Your task to perform on an android device: open app "ZOOM Cloud Meetings" Image 0: 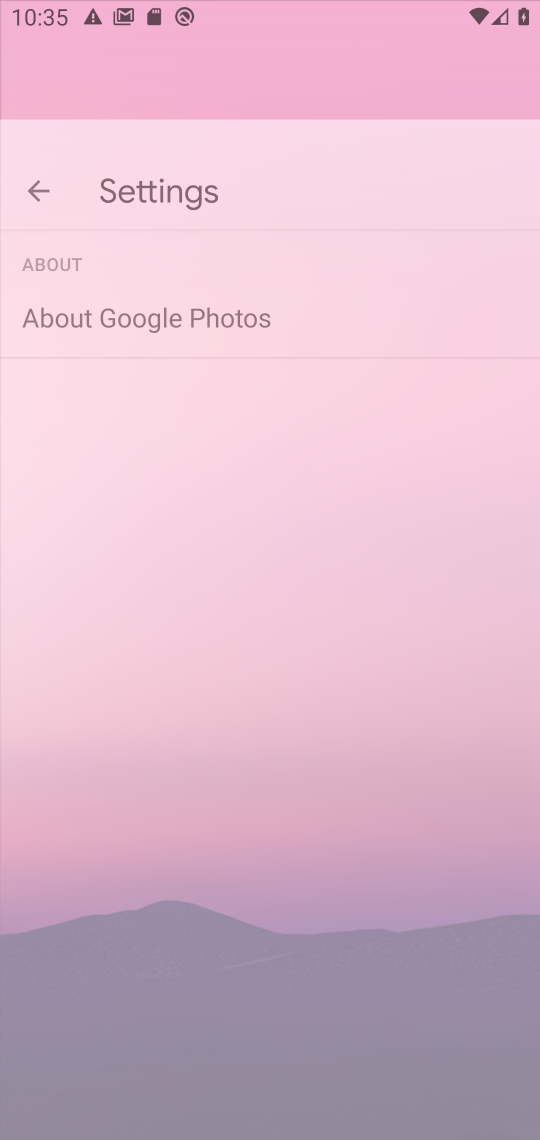
Step 0: click (211, 23)
Your task to perform on an android device: open app "ZOOM Cloud Meetings" Image 1: 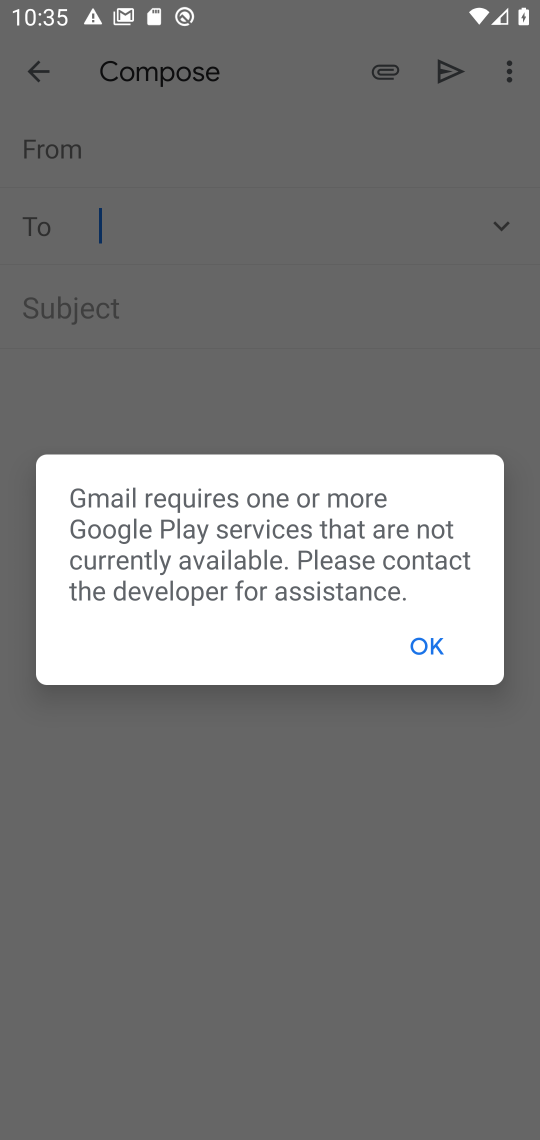
Step 1: press home button
Your task to perform on an android device: open app "ZOOM Cloud Meetings" Image 2: 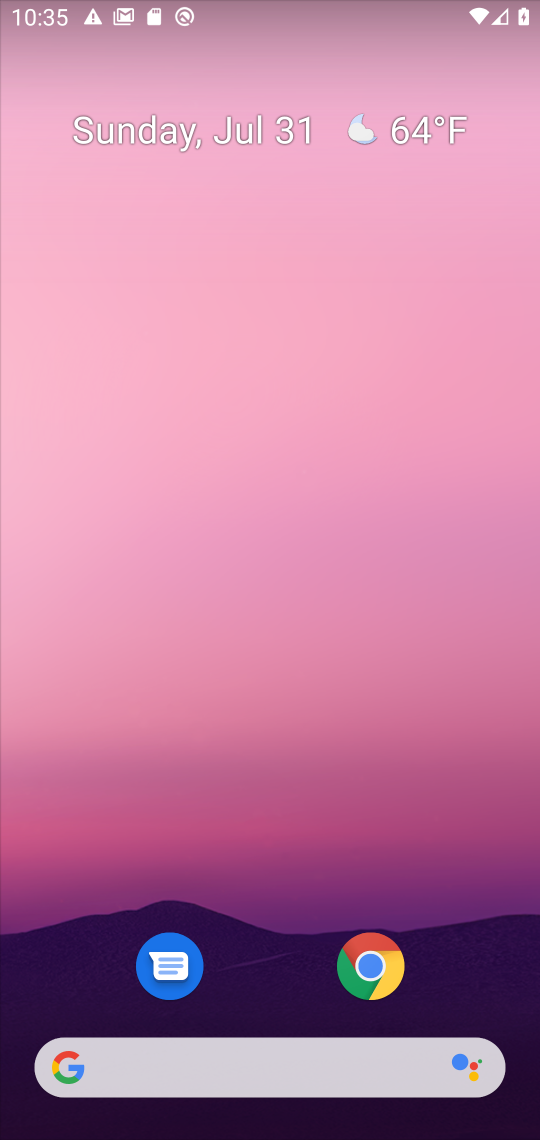
Step 2: drag from (233, 814) to (294, 14)
Your task to perform on an android device: open app "ZOOM Cloud Meetings" Image 3: 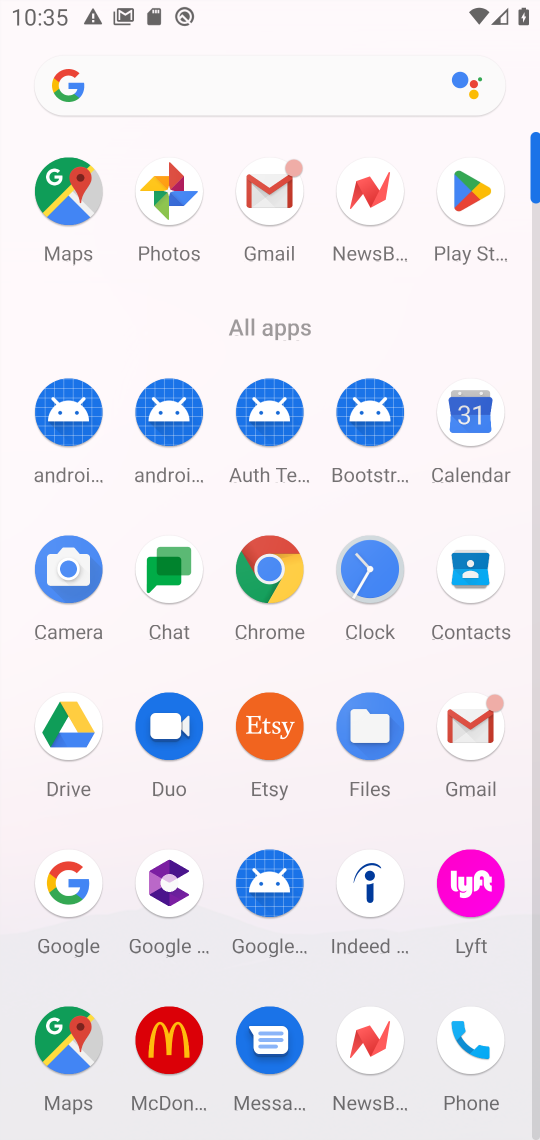
Step 3: click (468, 176)
Your task to perform on an android device: open app "ZOOM Cloud Meetings" Image 4: 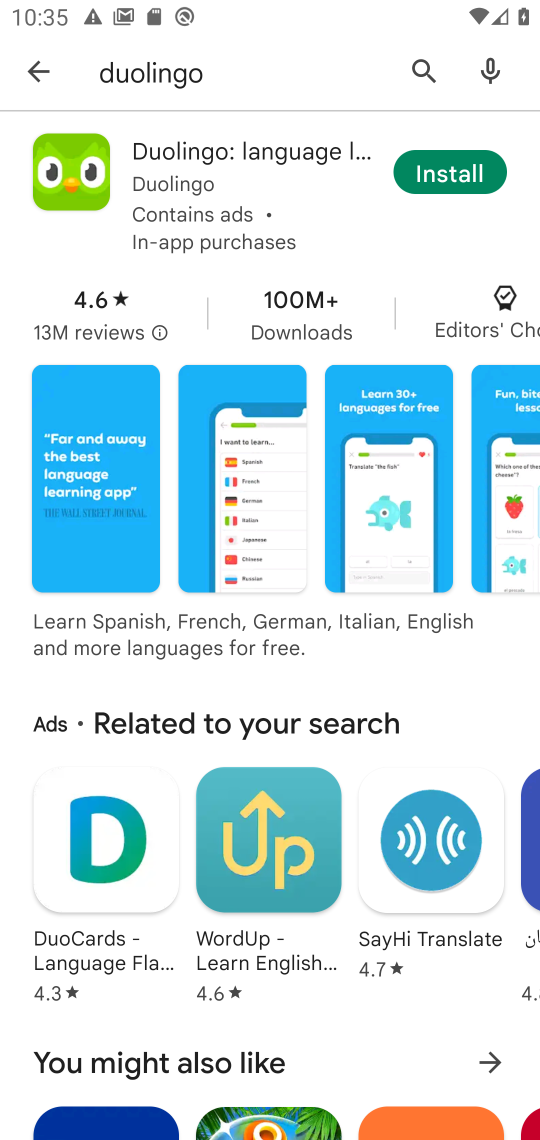
Step 4: click (248, 65)
Your task to perform on an android device: open app "ZOOM Cloud Meetings" Image 5: 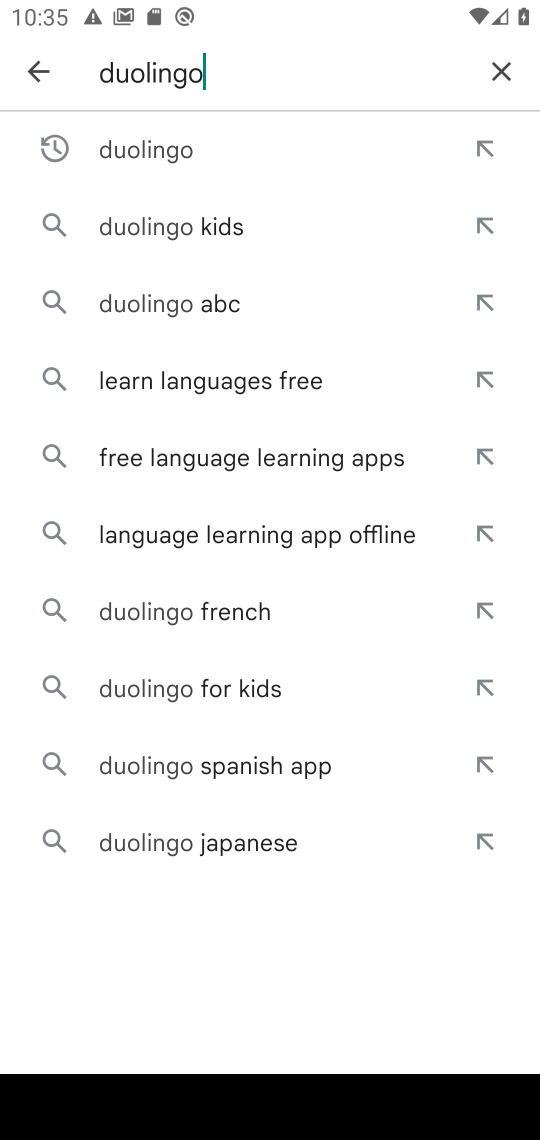
Step 5: click (510, 73)
Your task to perform on an android device: open app "ZOOM Cloud Meetings" Image 6: 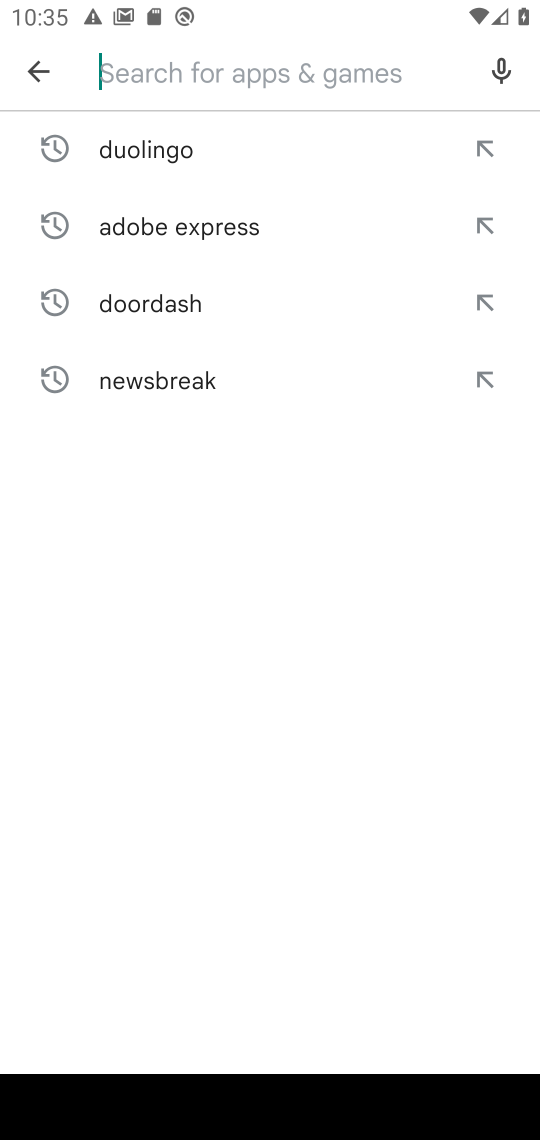
Step 6: type "Zoom"
Your task to perform on an android device: open app "ZOOM Cloud Meetings" Image 7: 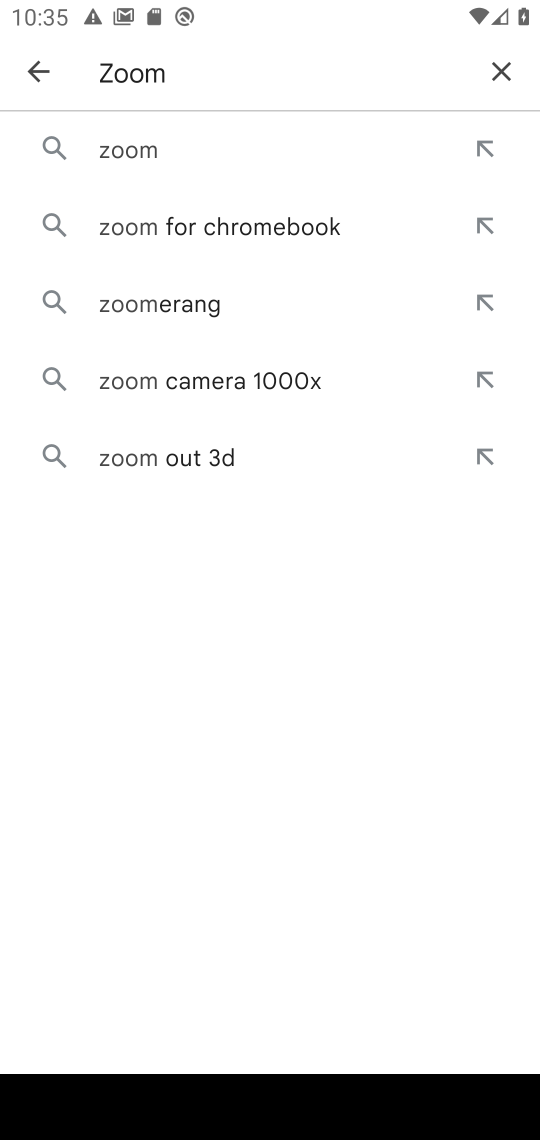
Step 7: click (158, 123)
Your task to perform on an android device: open app "ZOOM Cloud Meetings" Image 8: 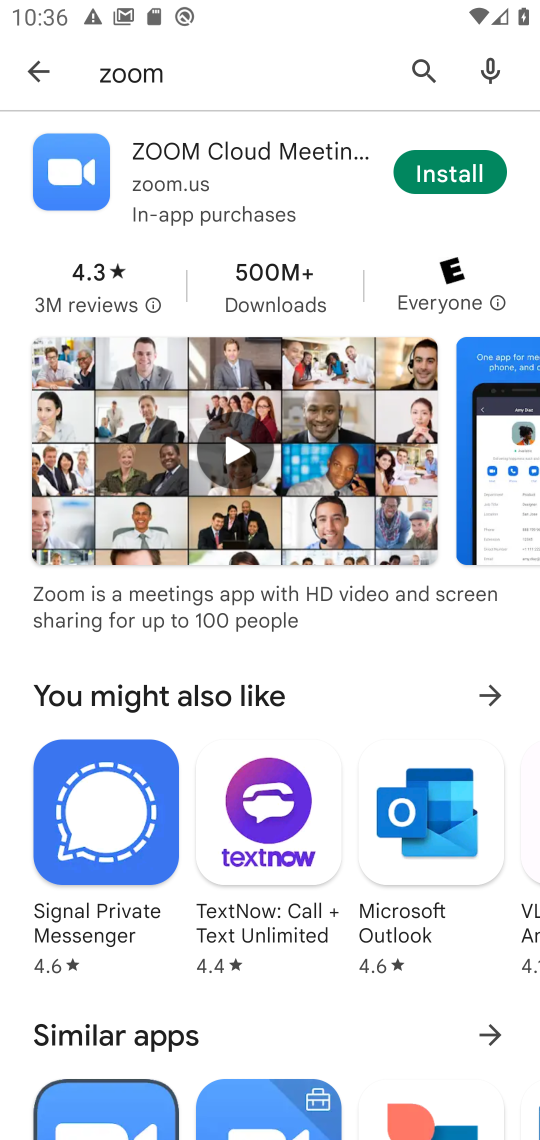
Step 8: task complete